Your task to perform on an android device: toggle notifications settings in the gmail app Image 0: 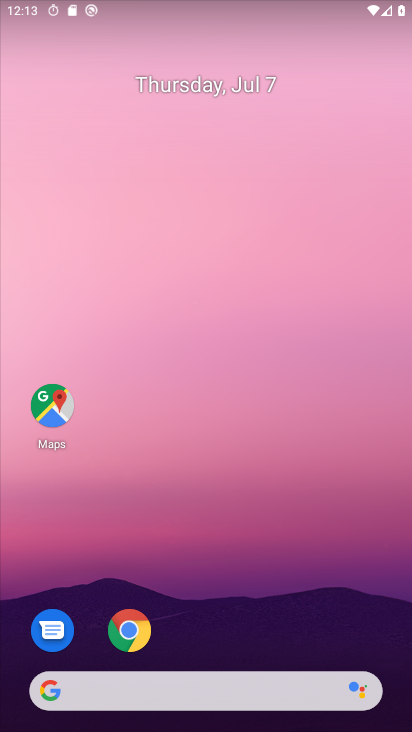
Step 0: drag from (211, 508) to (233, 38)
Your task to perform on an android device: toggle notifications settings in the gmail app Image 1: 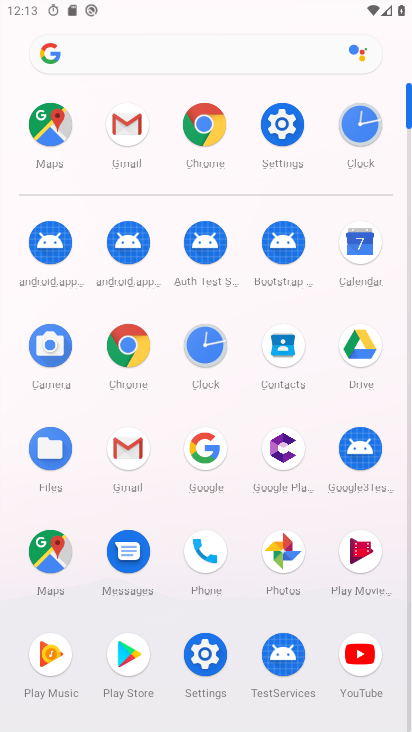
Step 1: click (127, 456)
Your task to perform on an android device: toggle notifications settings in the gmail app Image 2: 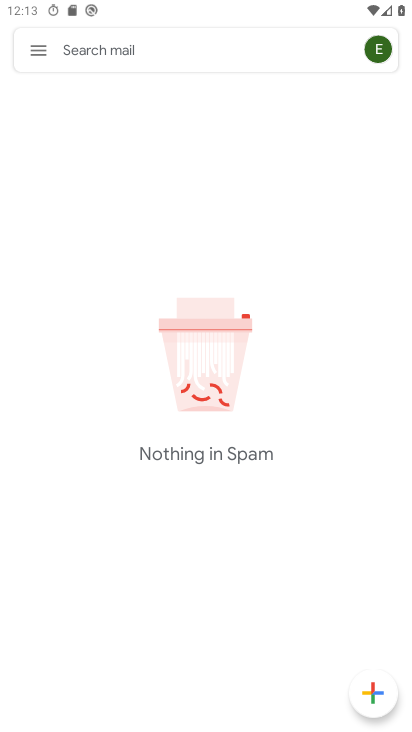
Step 2: press home button
Your task to perform on an android device: toggle notifications settings in the gmail app Image 3: 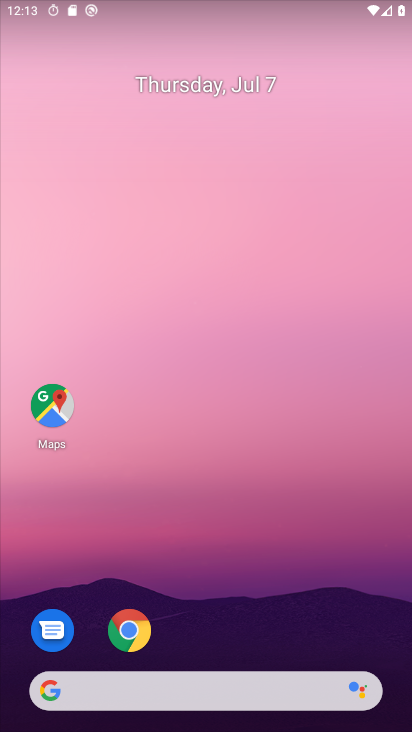
Step 3: drag from (257, 575) to (276, 57)
Your task to perform on an android device: toggle notifications settings in the gmail app Image 4: 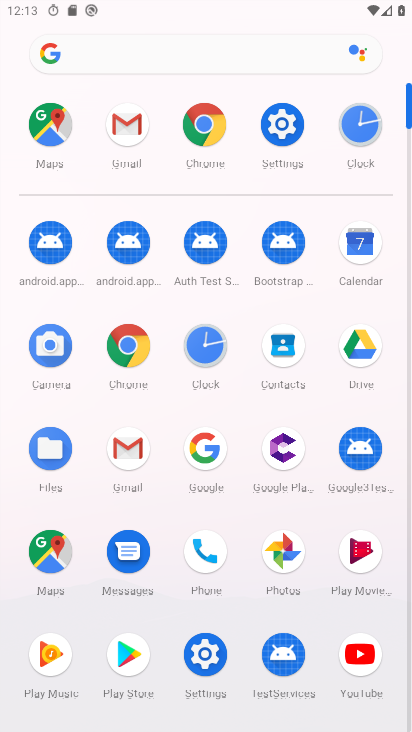
Step 4: click (131, 445)
Your task to perform on an android device: toggle notifications settings in the gmail app Image 5: 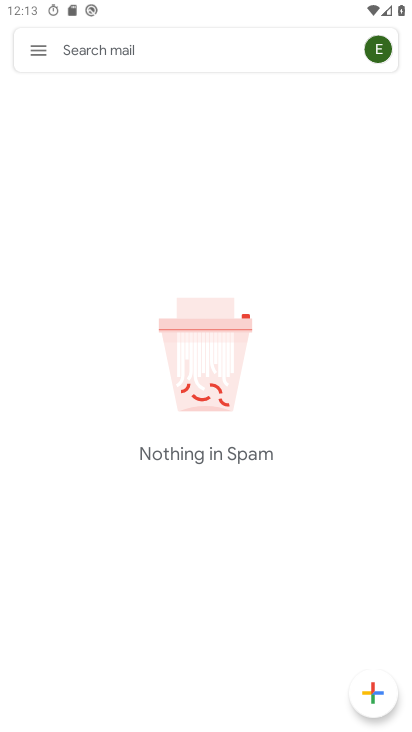
Step 5: click (38, 44)
Your task to perform on an android device: toggle notifications settings in the gmail app Image 6: 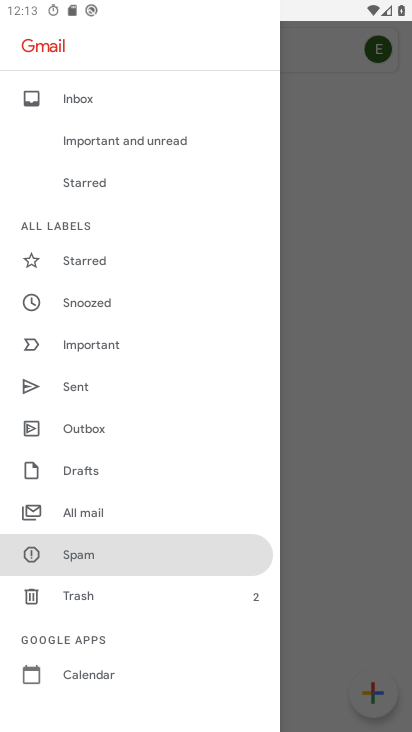
Step 6: drag from (94, 598) to (111, 374)
Your task to perform on an android device: toggle notifications settings in the gmail app Image 7: 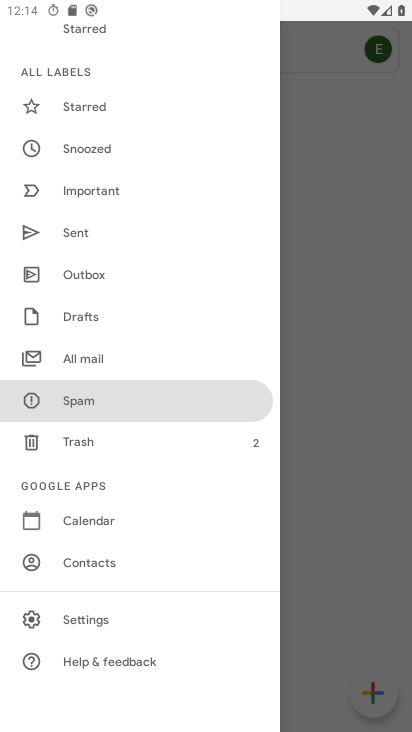
Step 7: click (101, 617)
Your task to perform on an android device: toggle notifications settings in the gmail app Image 8: 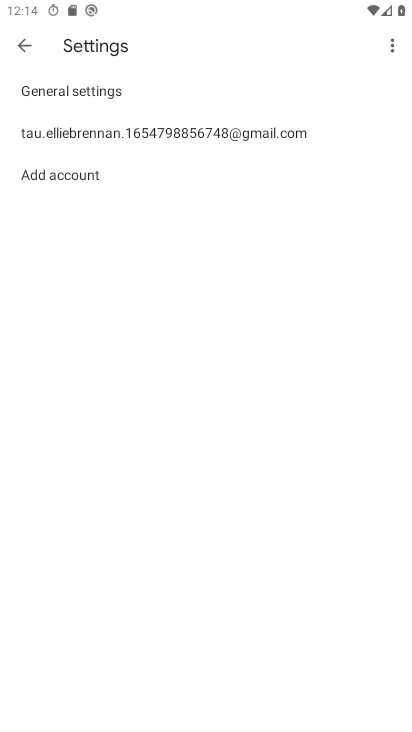
Step 8: click (126, 129)
Your task to perform on an android device: toggle notifications settings in the gmail app Image 9: 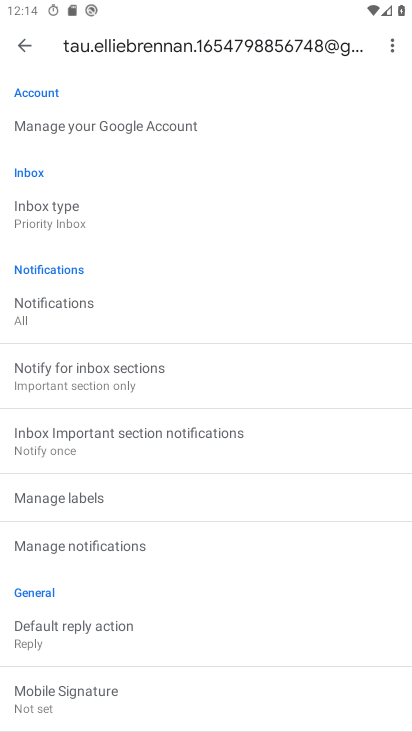
Step 9: click (26, 50)
Your task to perform on an android device: toggle notifications settings in the gmail app Image 10: 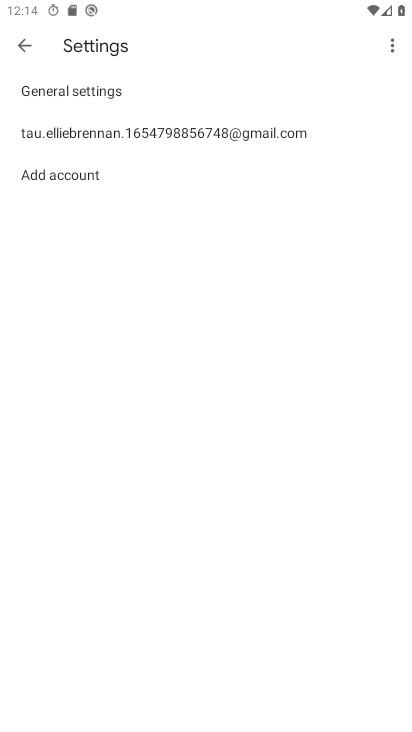
Step 10: click (105, 90)
Your task to perform on an android device: toggle notifications settings in the gmail app Image 11: 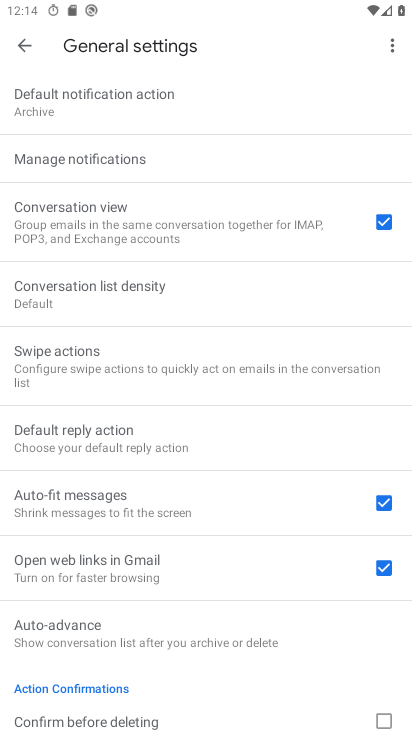
Step 11: click (108, 160)
Your task to perform on an android device: toggle notifications settings in the gmail app Image 12: 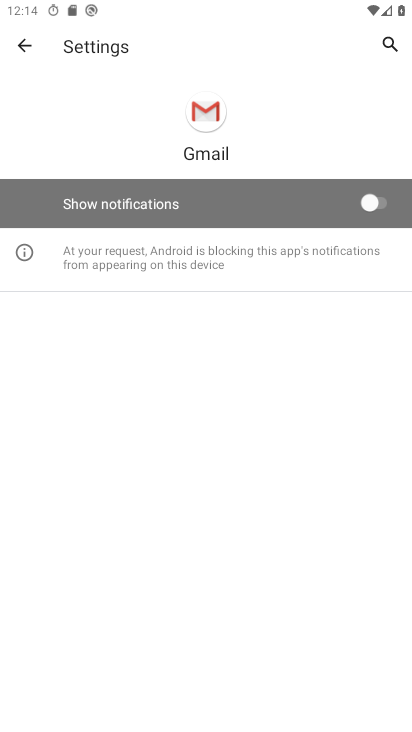
Step 12: click (332, 224)
Your task to perform on an android device: toggle notifications settings in the gmail app Image 13: 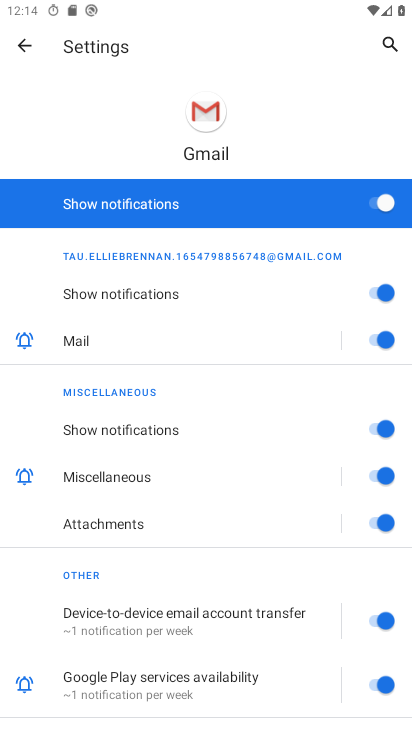
Step 13: task complete